Your task to perform on an android device: What's the weather? Image 0: 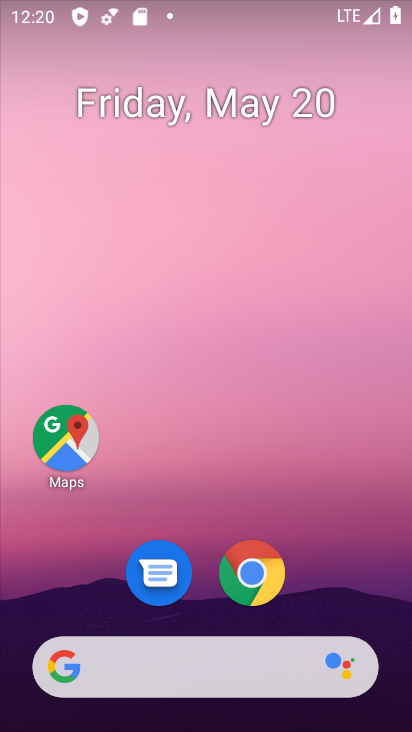
Step 0: click (172, 671)
Your task to perform on an android device: What's the weather? Image 1: 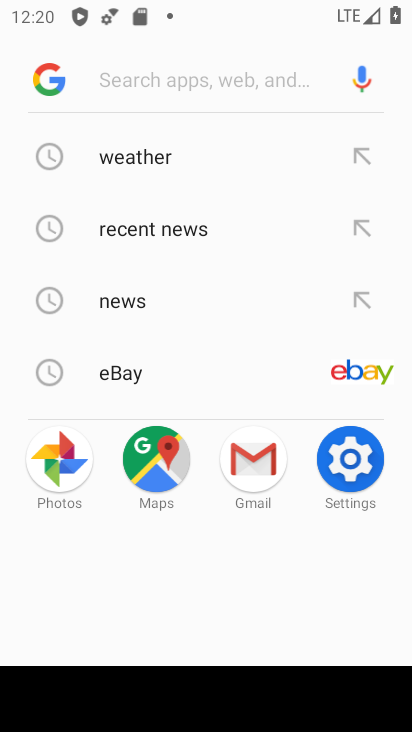
Step 1: click (129, 154)
Your task to perform on an android device: What's the weather? Image 2: 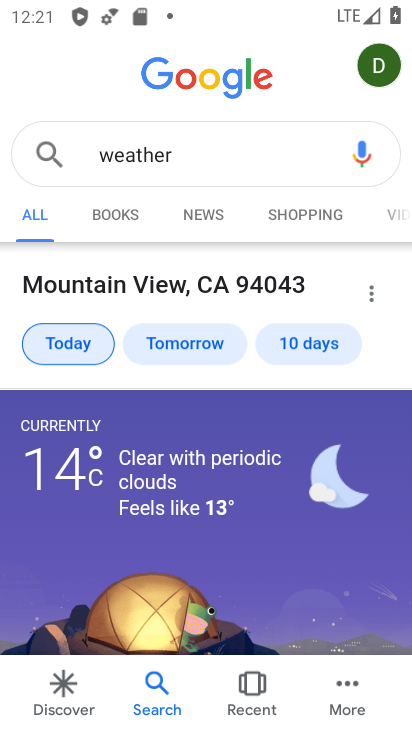
Step 2: task complete